Your task to perform on an android device: change text size in settings app Image 0: 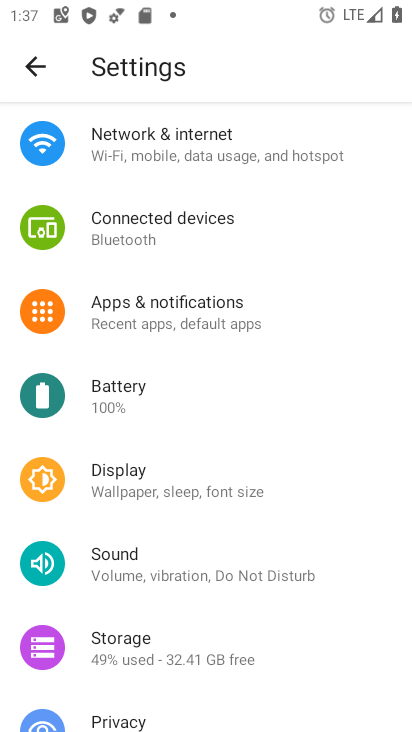
Step 0: press home button
Your task to perform on an android device: change text size in settings app Image 1: 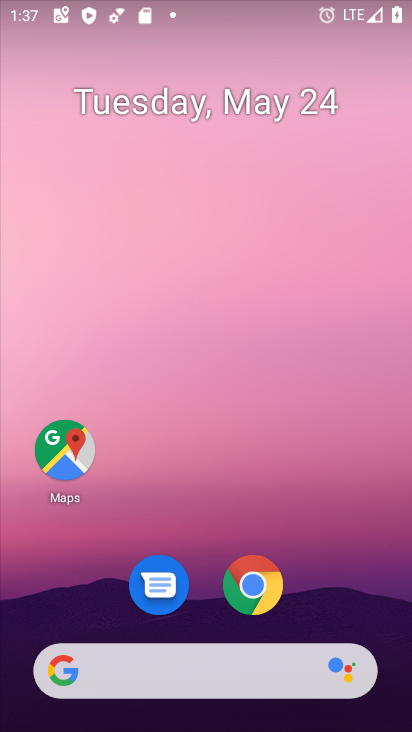
Step 1: drag from (264, 462) to (288, 29)
Your task to perform on an android device: change text size in settings app Image 2: 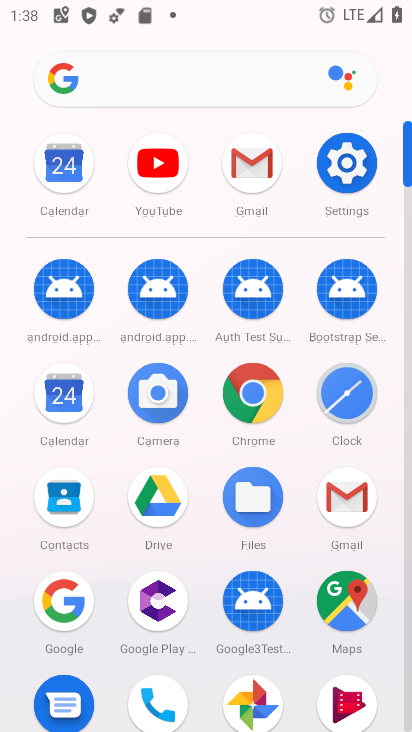
Step 2: click (347, 172)
Your task to perform on an android device: change text size in settings app Image 3: 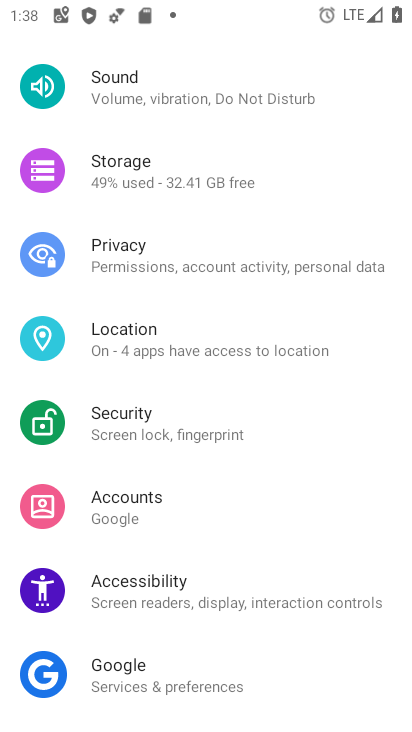
Step 3: drag from (237, 297) to (263, 530)
Your task to perform on an android device: change text size in settings app Image 4: 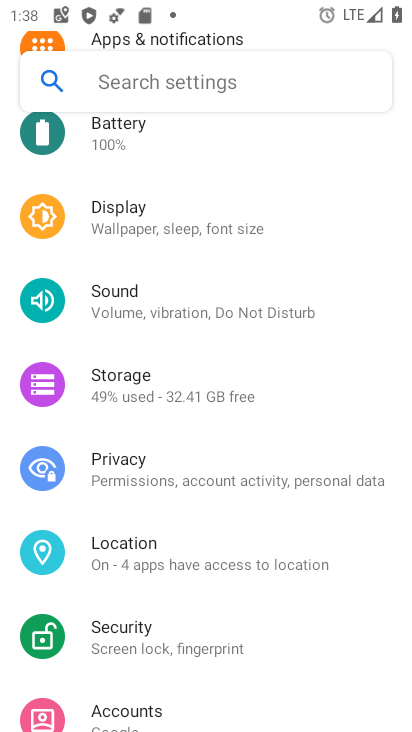
Step 4: click (208, 229)
Your task to perform on an android device: change text size in settings app Image 5: 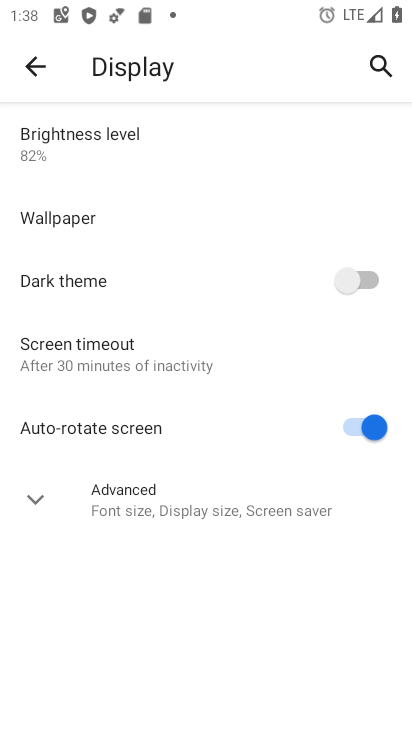
Step 5: click (37, 492)
Your task to perform on an android device: change text size in settings app Image 6: 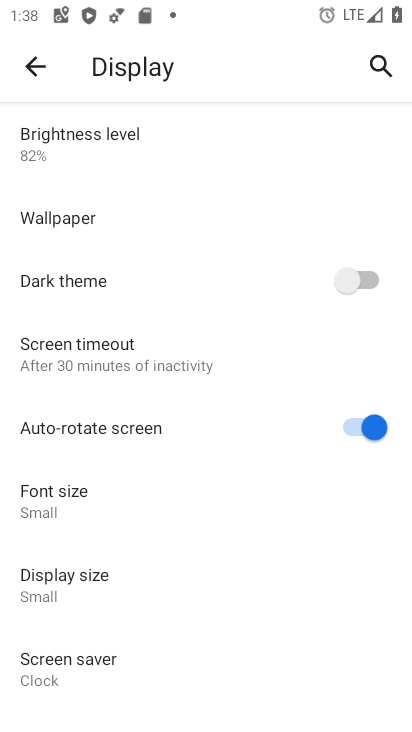
Step 6: click (41, 502)
Your task to perform on an android device: change text size in settings app Image 7: 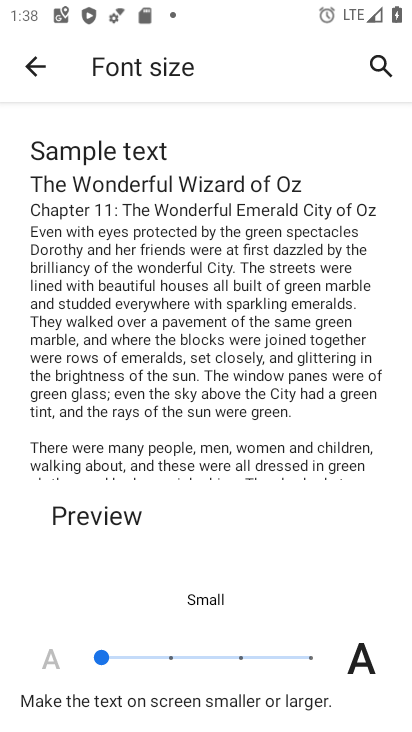
Step 7: click (167, 651)
Your task to perform on an android device: change text size in settings app Image 8: 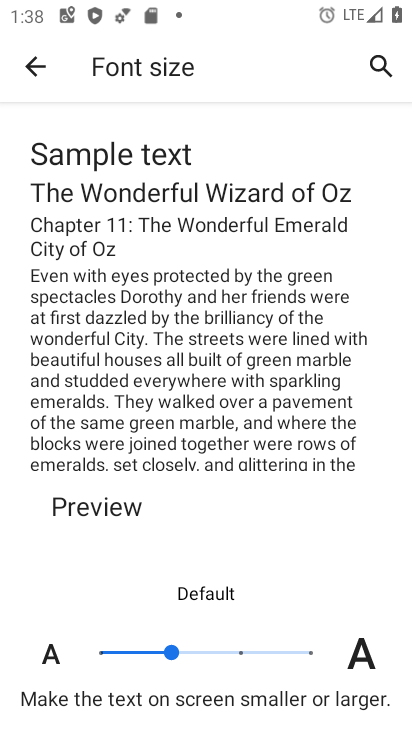
Step 8: click (34, 60)
Your task to perform on an android device: change text size in settings app Image 9: 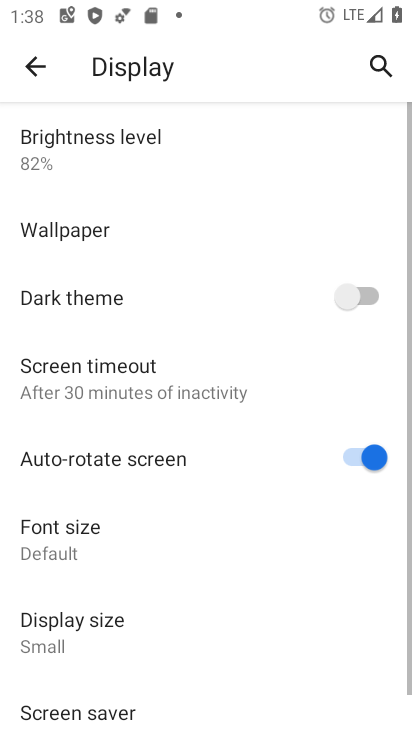
Step 9: click (34, 60)
Your task to perform on an android device: change text size in settings app Image 10: 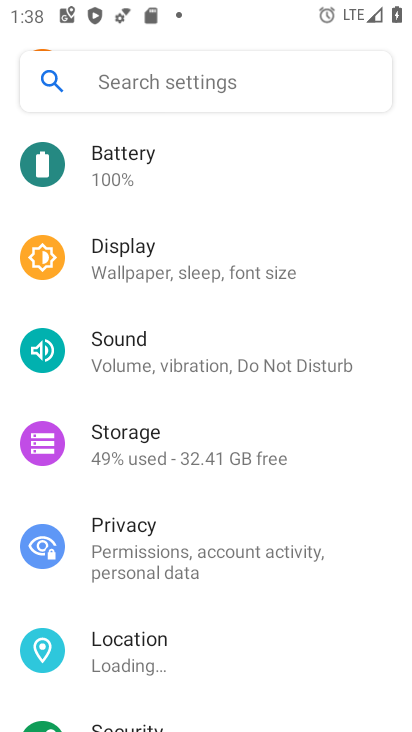
Step 10: task complete